Your task to perform on an android device: Go to network settings Image 0: 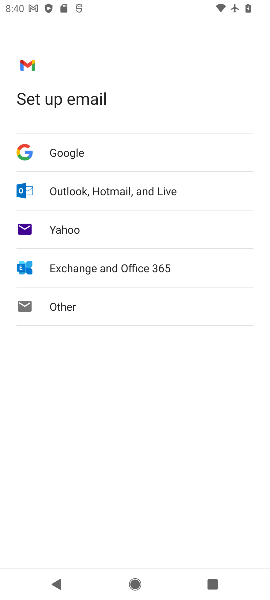
Step 0: press home button
Your task to perform on an android device: Go to network settings Image 1: 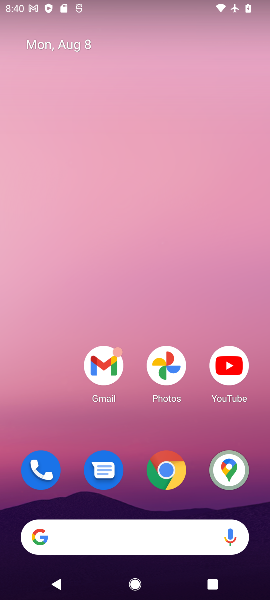
Step 1: drag from (135, 513) to (152, 179)
Your task to perform on an android device: Go to network settings Image 2: 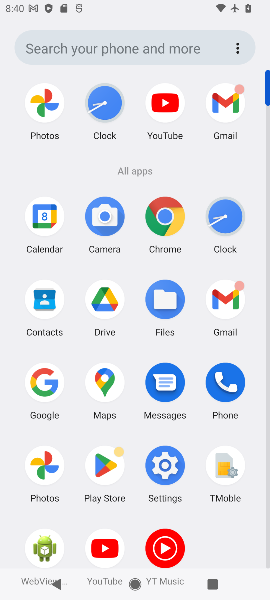
Step 2: click (169, 473)
Your task to perform on an android device: Go to network settings Image 3: 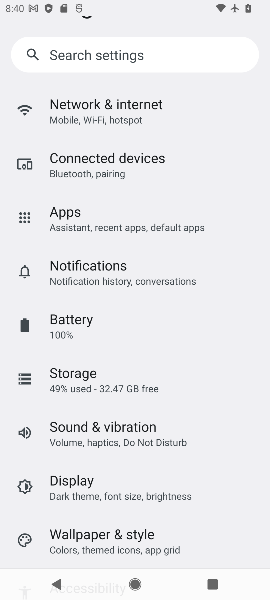
Step 3: click (94, 115)
Your task to perform on an android device: Go to network settings Image 4: 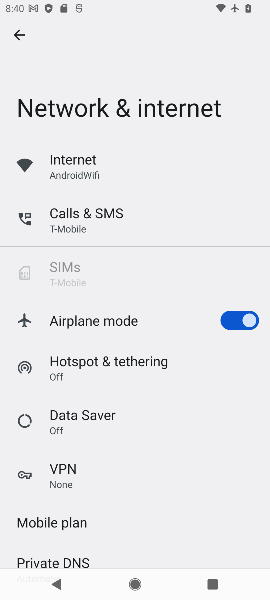
Step 4: task complete